Your task to perform on an android device: open app "LiveIn - Share Your Moment" Image 0: 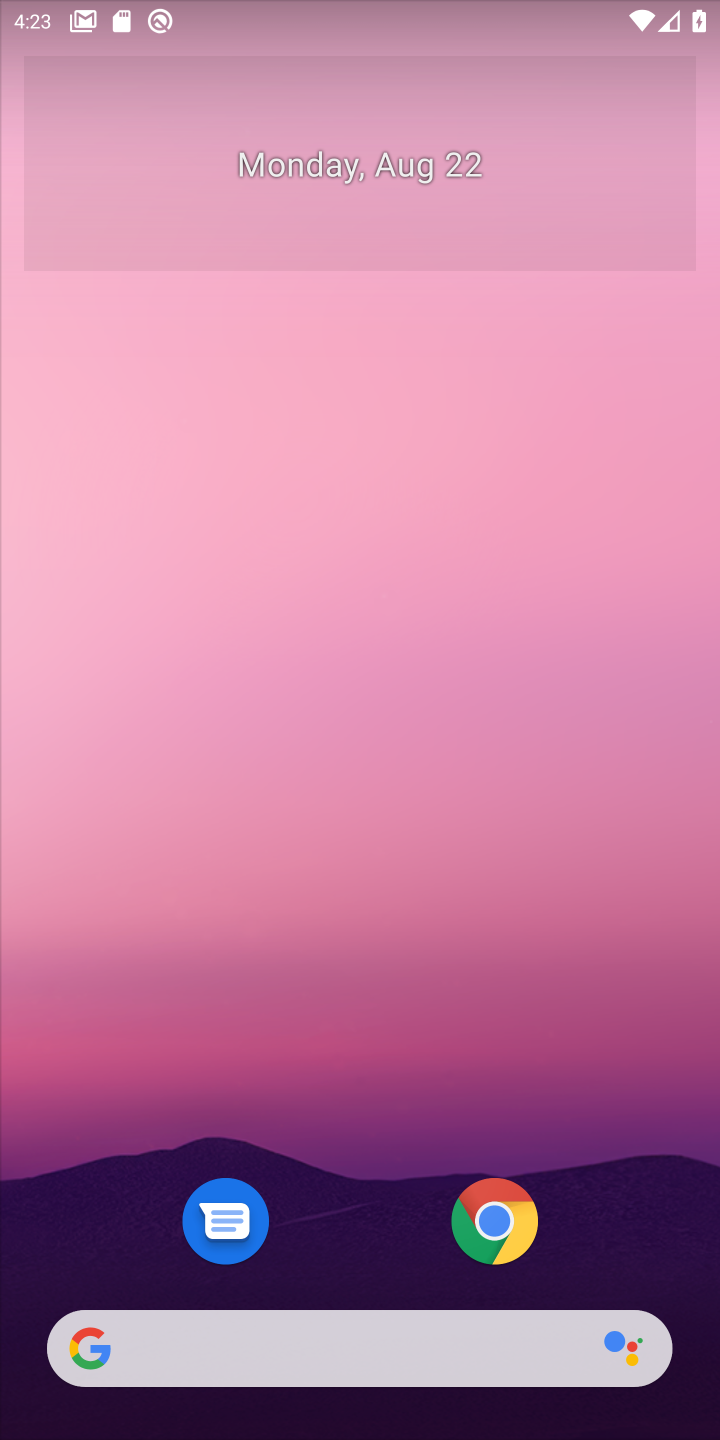
Step 0: drag from (420, 801) to (437, 271)
Your task to perform on an android device: open app "LiveIn - Share Your Moment" Image 1: 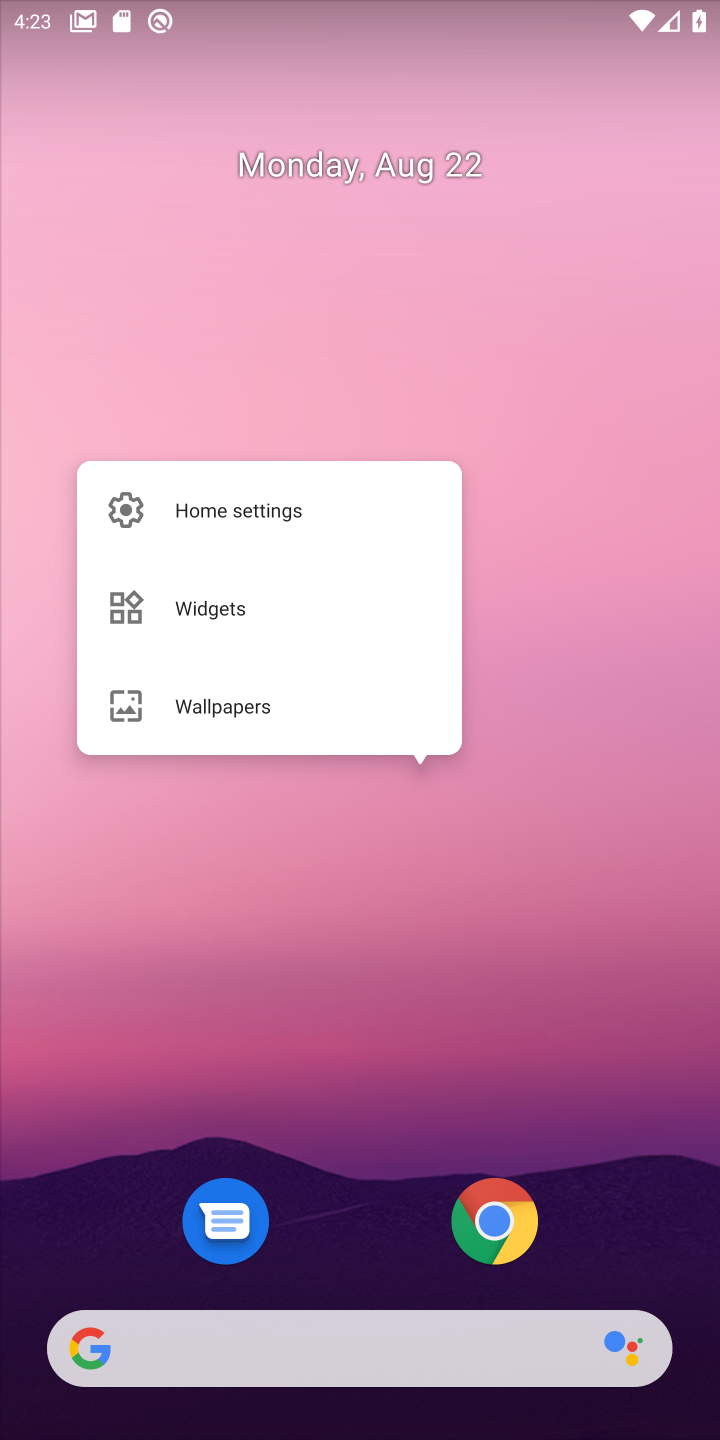
Step 1: click (499, 1167)
Your task to perform on an android device: open app "LiveIn - Share Your Moment" Image 2: 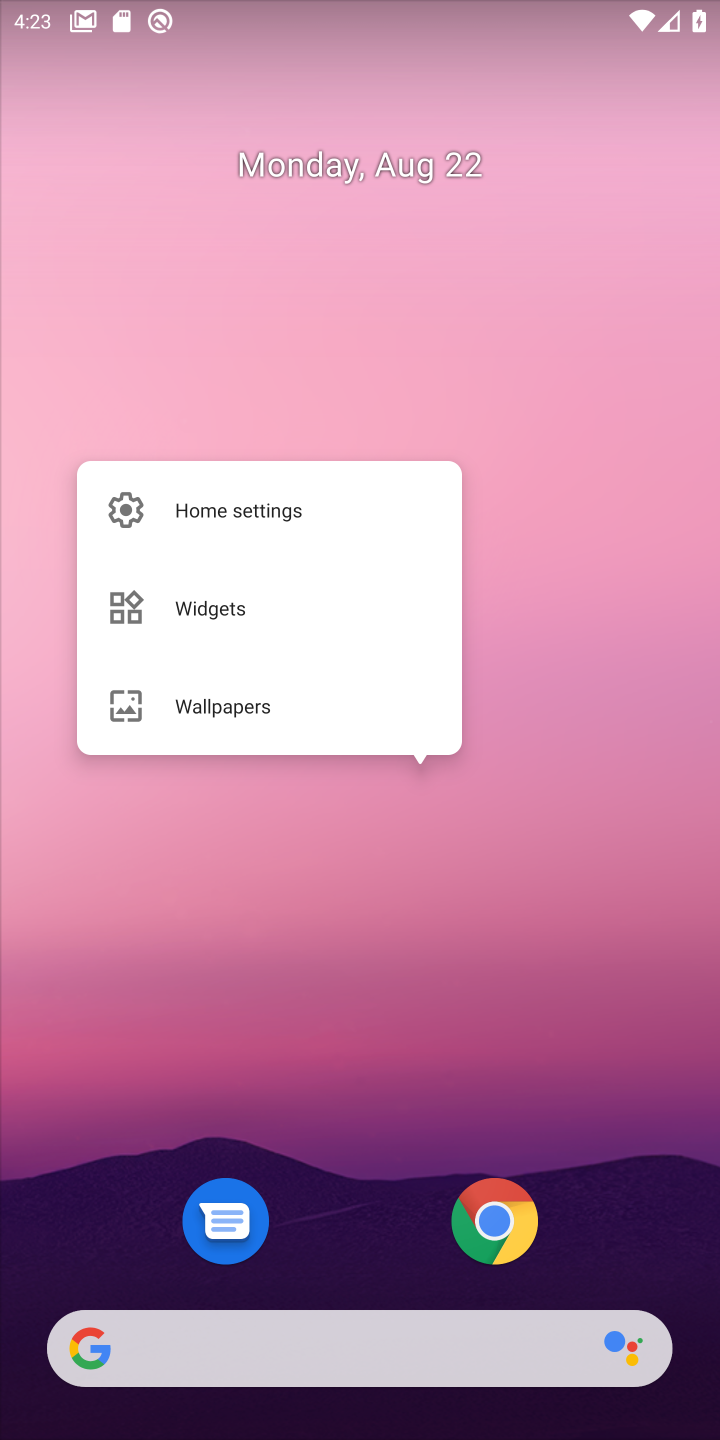
Step 2: click (468, 1116)
Your task to perform on an android device: open app "LiveIn - Share Your Moment" Image 3: 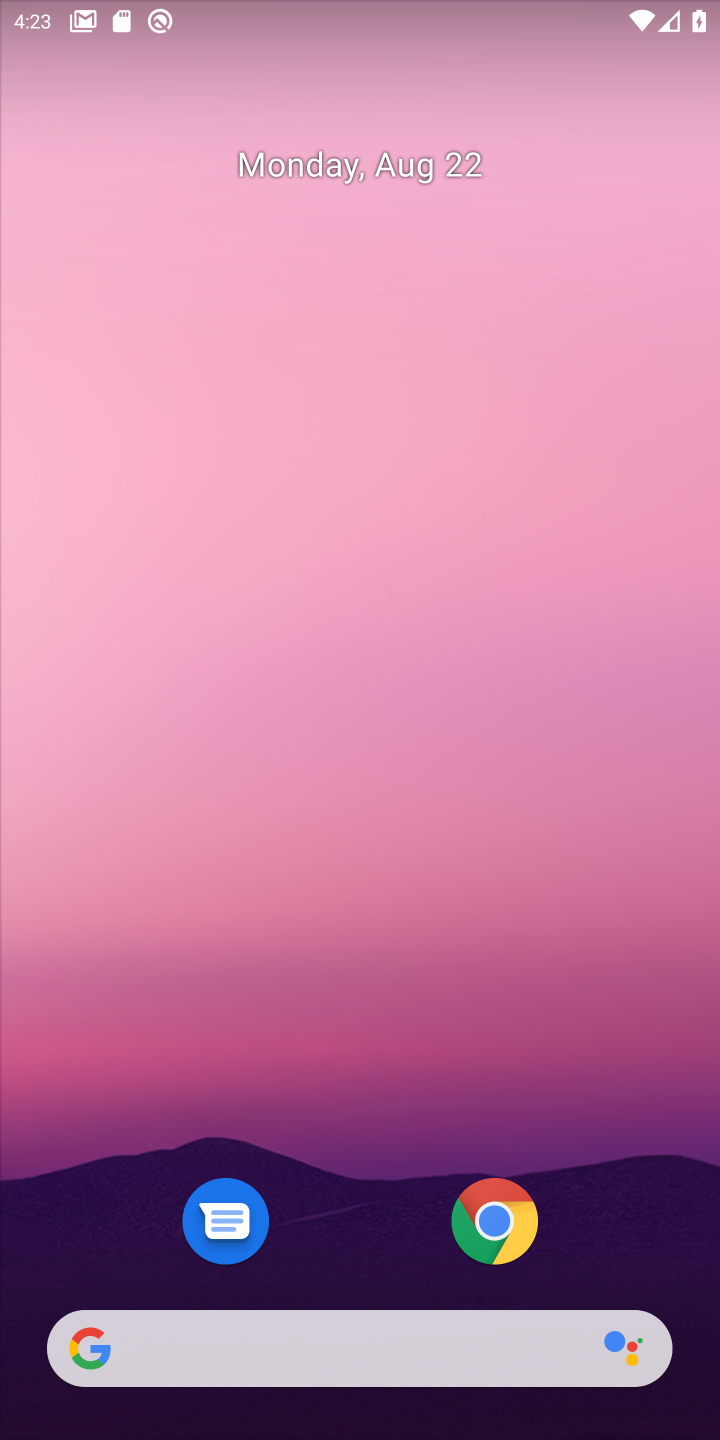
Step 3: click (435, 1039)
Your task to perform on an android device: open app "LiveIn - Share Your Moment" Image 4: 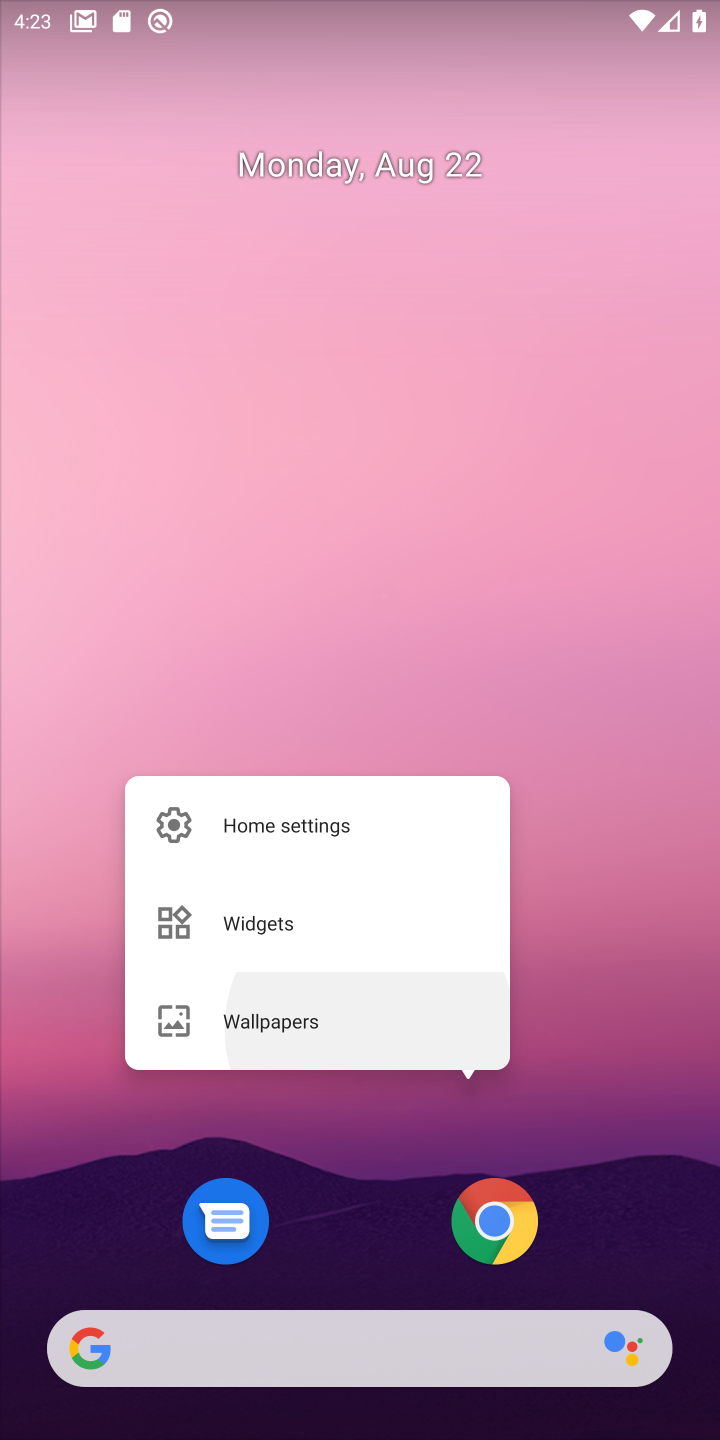
Step 4: drag from (385, 1322) to (221, 62)
Your task to perform on an android device: open app "LiveIn - Share Your Moment" Image 5: 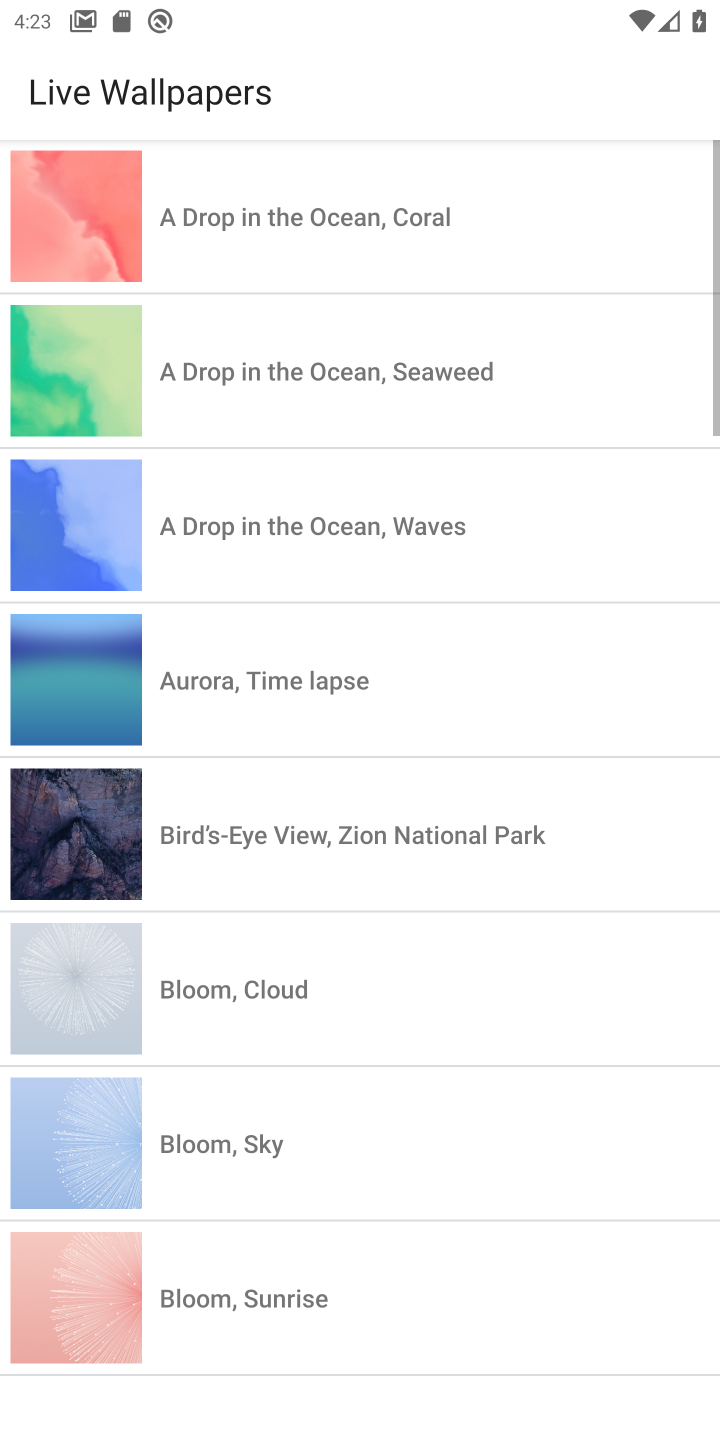
Step 5: press back button
Your task to perform on an android device: open app "LiveIn - Share Your Moment" Image 6: 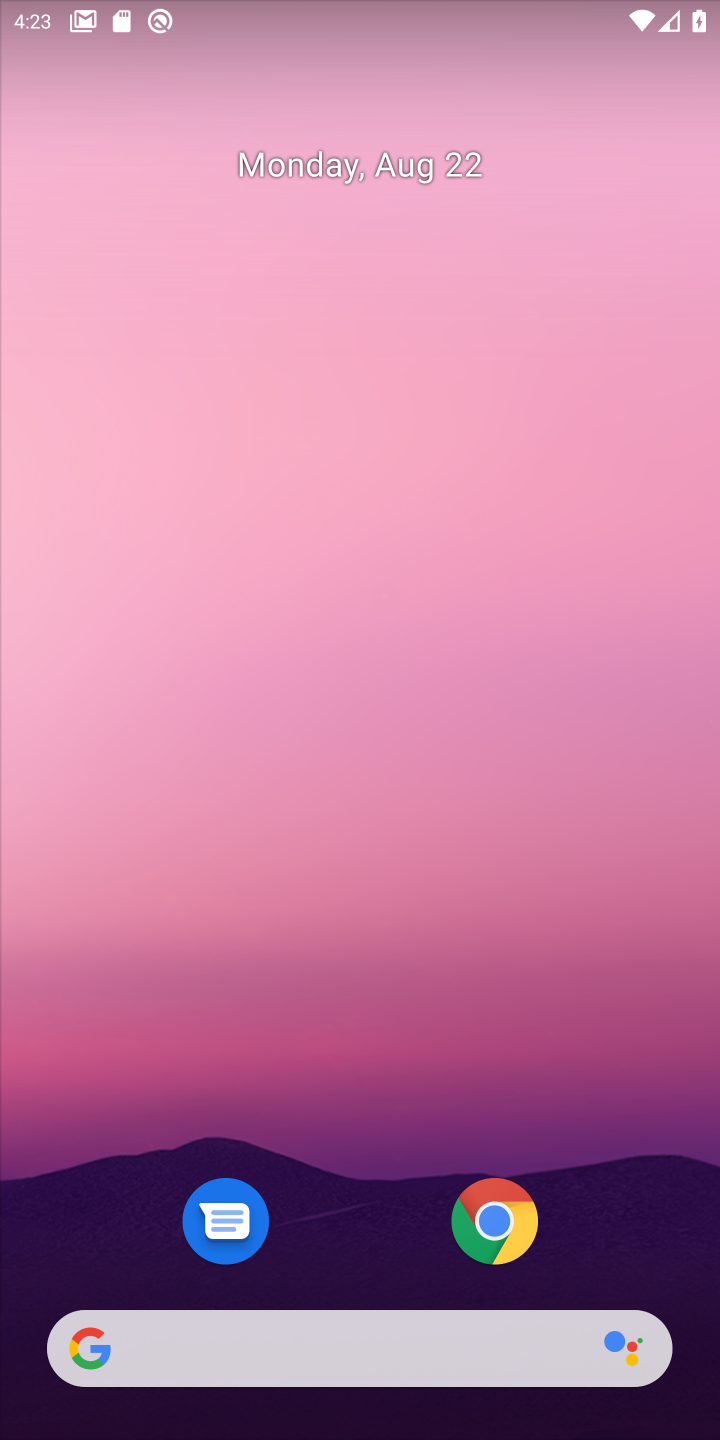
Step 6: drag from (390, 1050) to (280, 3)
Your task to perform on an android device: open app "LiveIn - Share Your Moment" Image 7: 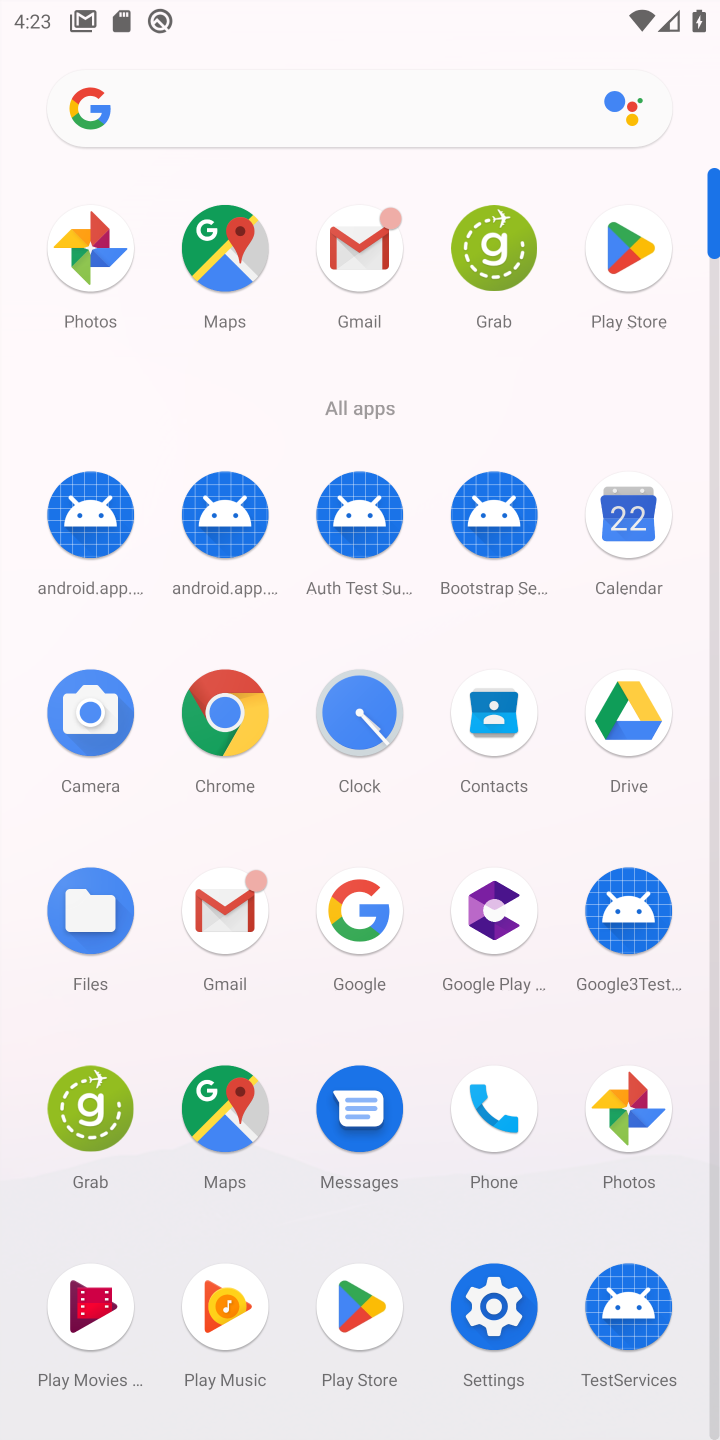
Step 7: click (636, 250)
Your task to perform on an android device: open app "LiveIn - Share Your Moment" Image 8: 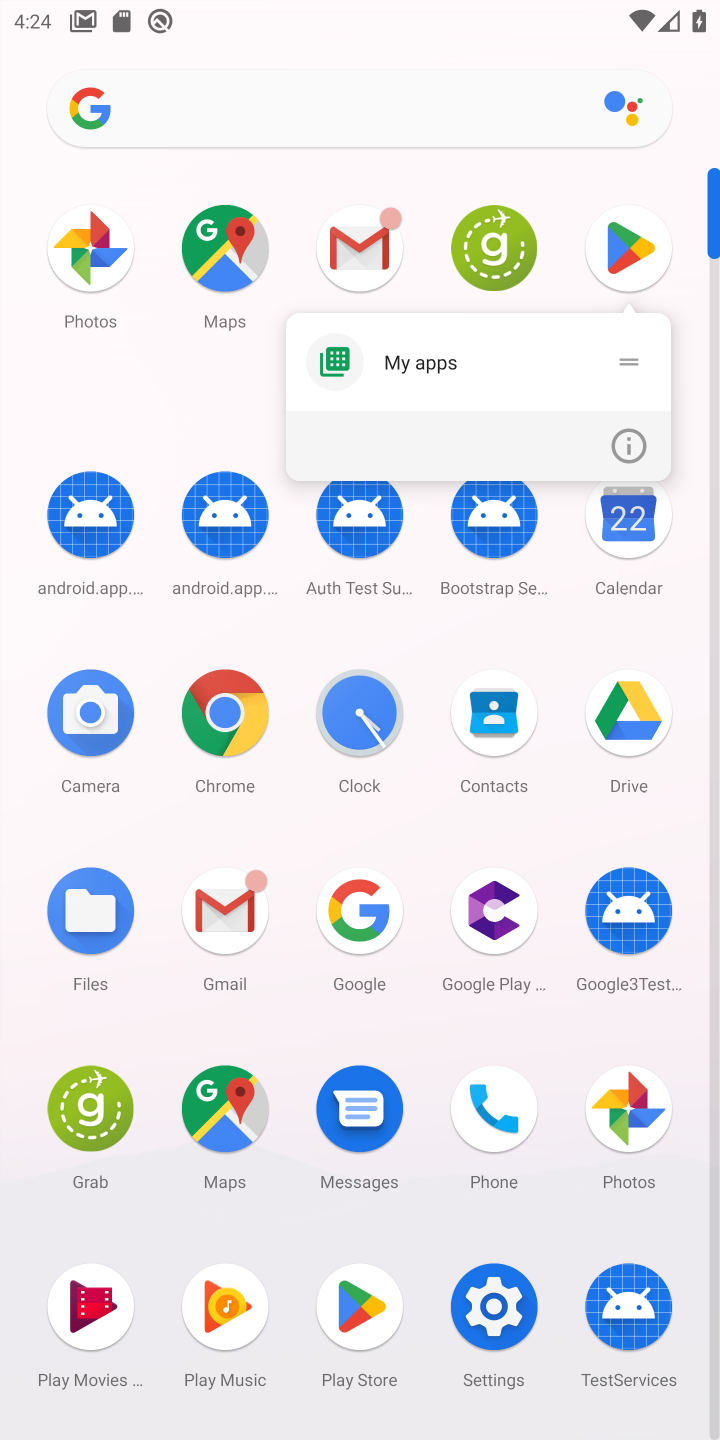
Step 8: click (636, 247)
Your task to perform on an android device: open app "LiveIn - Share Your Moment" Image 9: 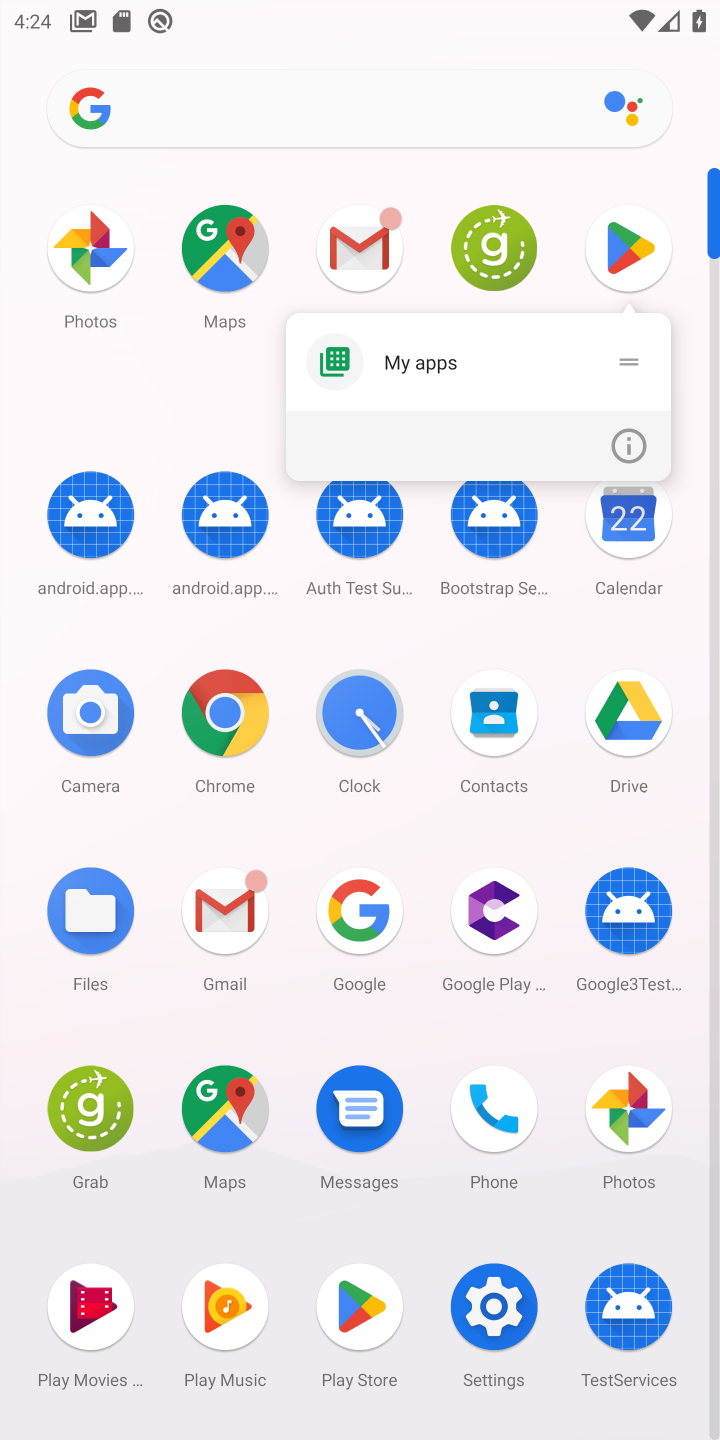
Step 9: click (634, 248)
Your task to perform on an android device: open app "LiveIn - Share Your Moment" Image 10: 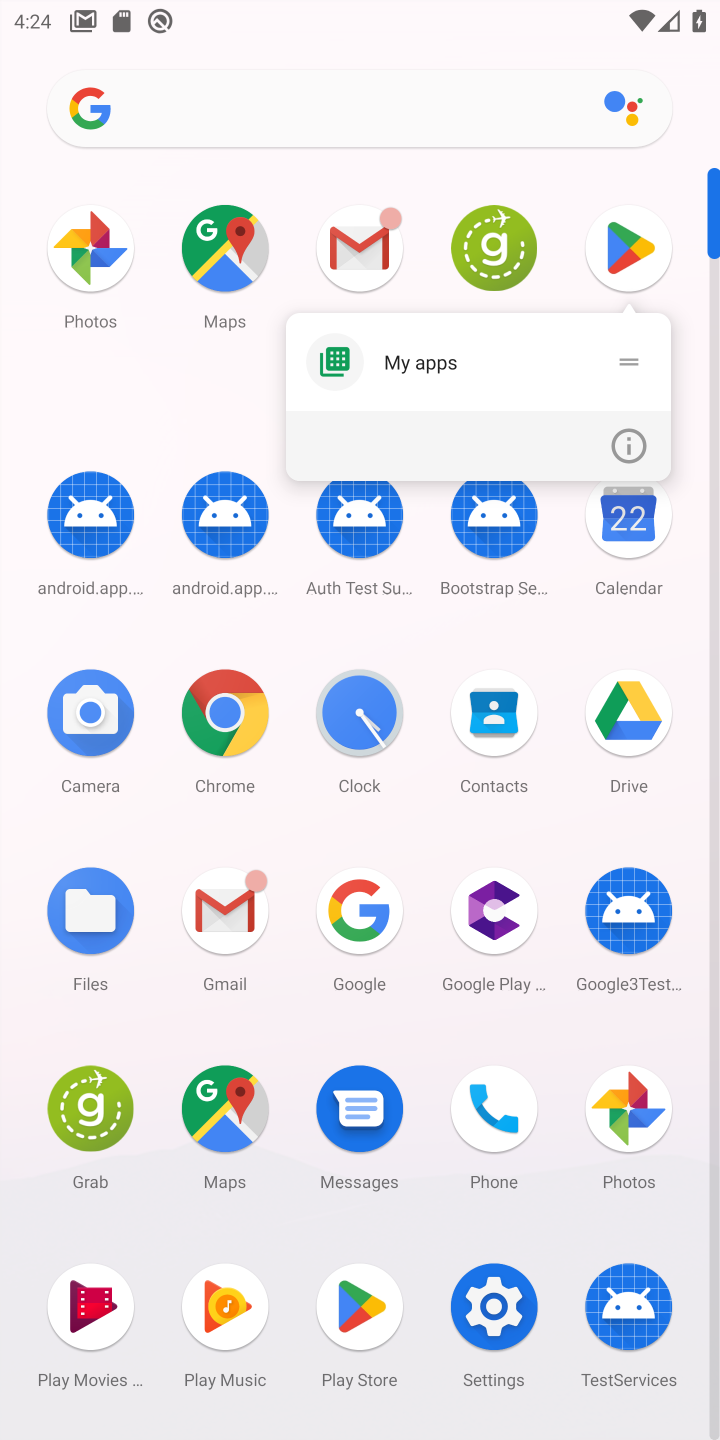
Step 10: click (636, 247)
Your task to perform on an android device: open app "LiveIn - Share Your Moment" Image 11: 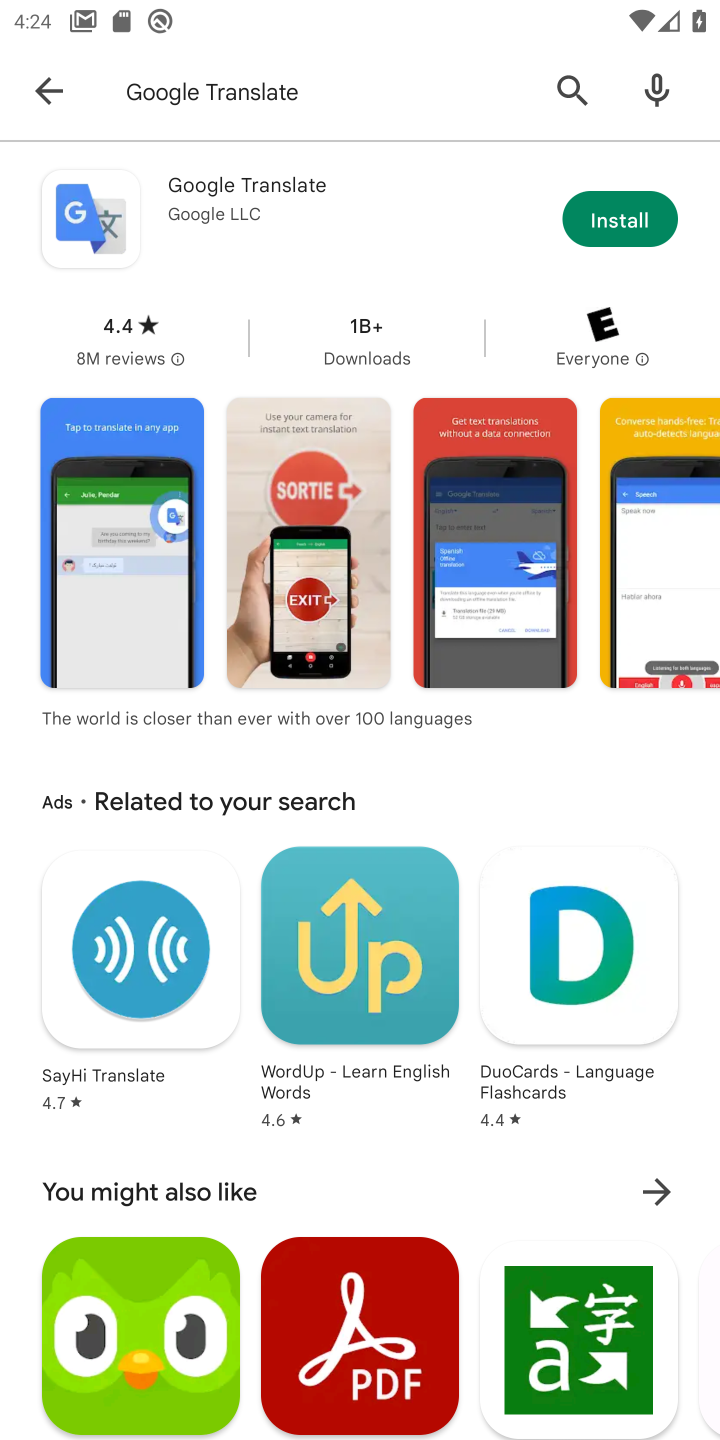
Step 11: press back button
Your task to perform on an android device: open app "LiveIn - Share Your Moment" Image 12: 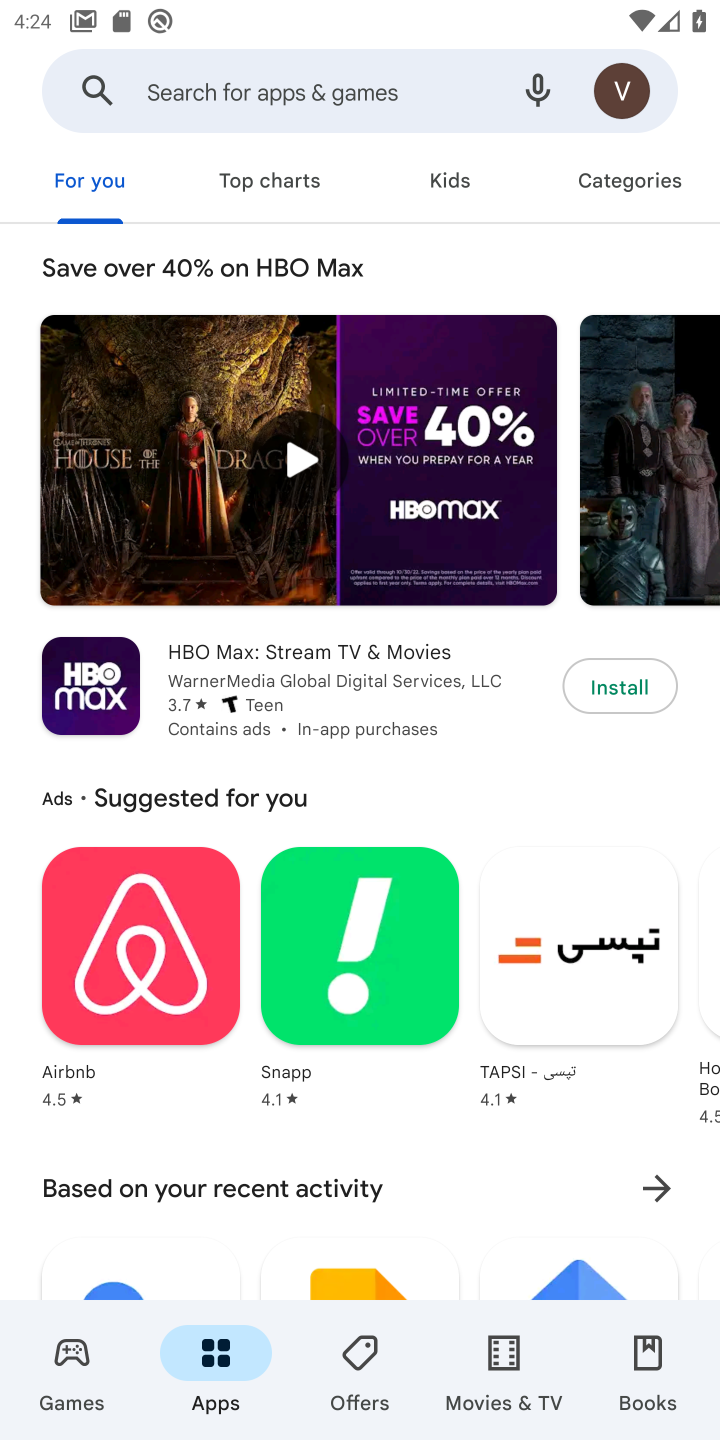
Step 12: click (220, 100)
Your task to perform on an android device: open app "LiveIn - Share Your Moment" Image 13: 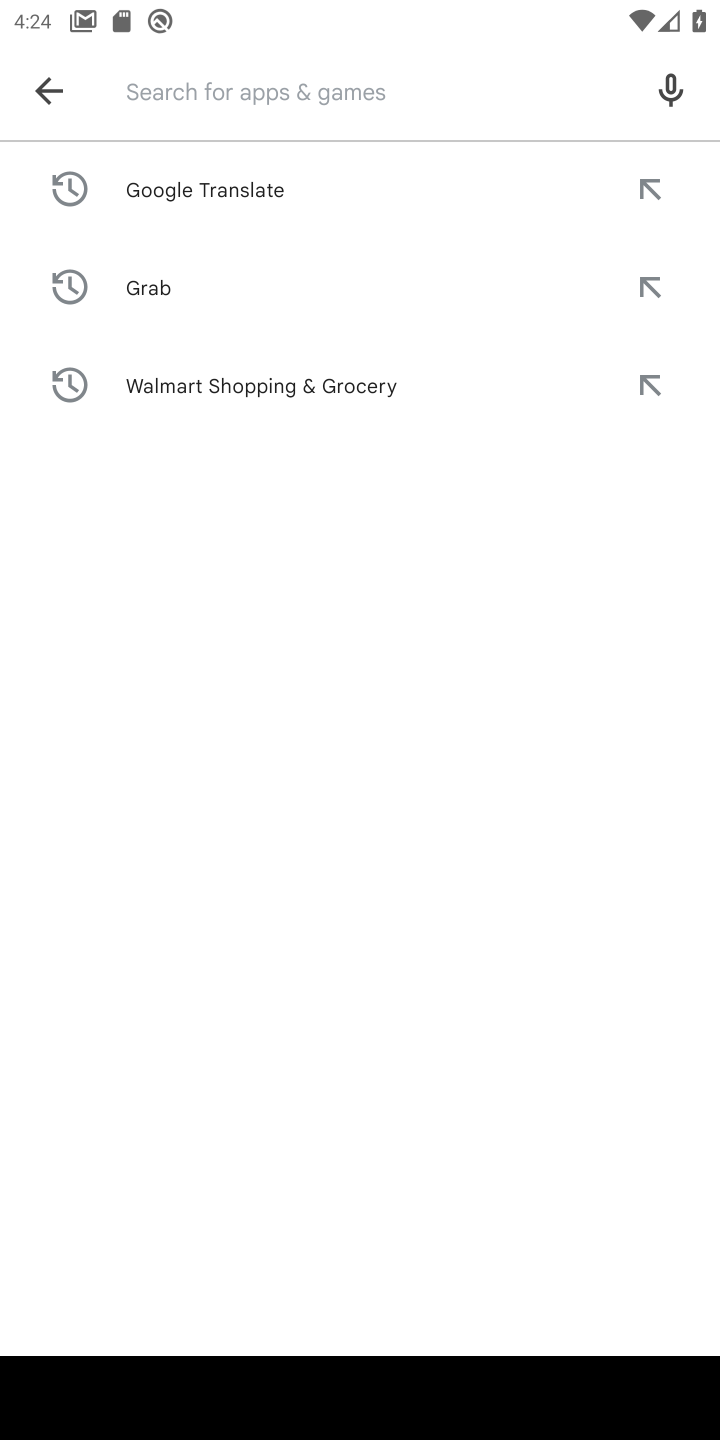
Step 13: type "LiveIn - Share Your Moment"
Your task to perform on an android device: open app "LiveIn - Share Your Moment" Image 14: 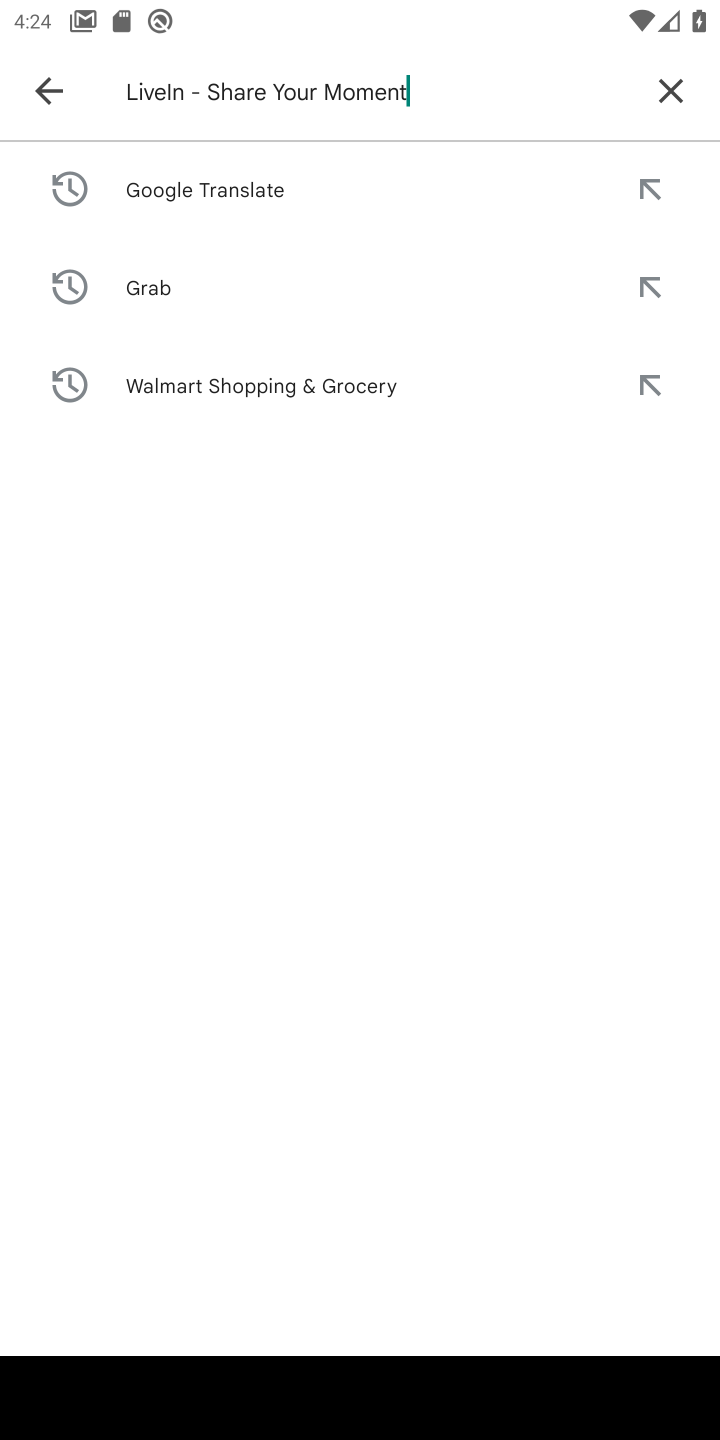
Step 14: press enter
Your task to perform on an android device: open app "LiveIn - Share Your Moment" Image 15: 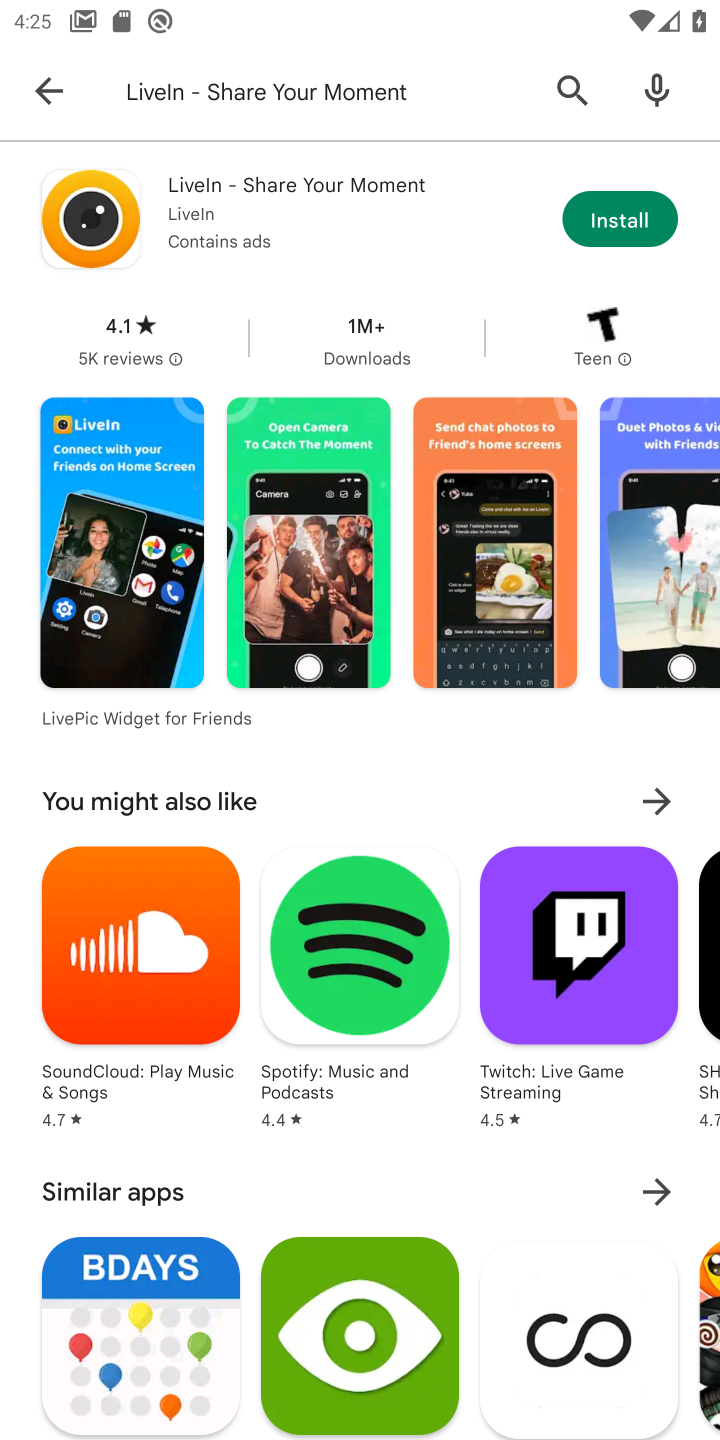
Step 15: task complete